Your task to perform on an android device: change the upload size in google photos Image 0: 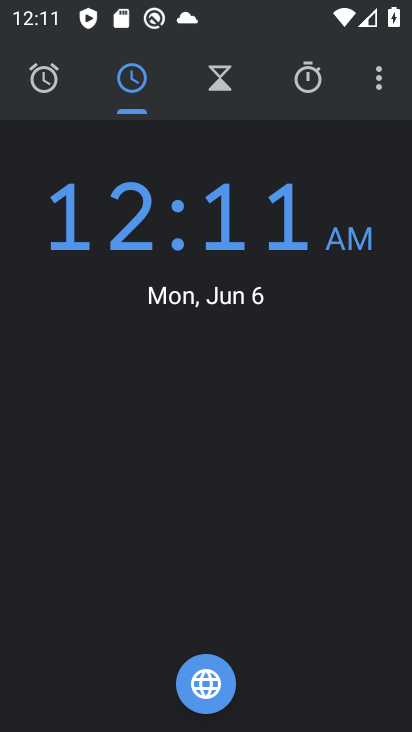
Step 0: press home button
Your task to perform on an android device: change the upload size in google photos Image 1: 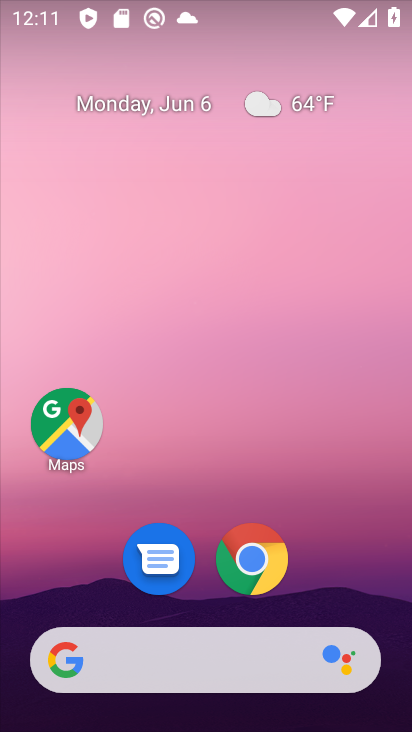
Step 1: drag from (270, 681) to (152, 230)
Your task to perform on an android device: change the upload size in google photos Image 2: 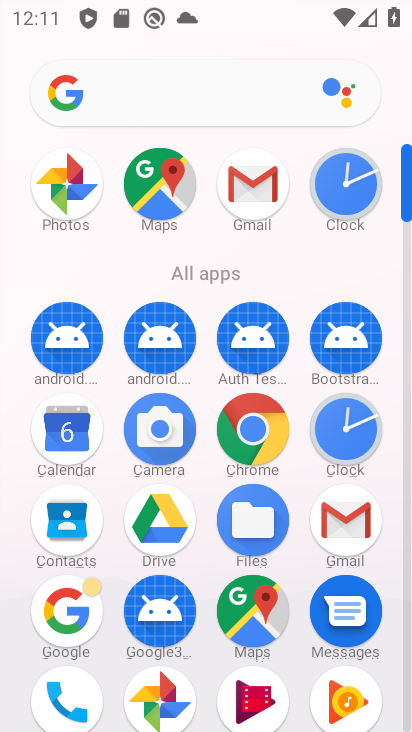
Step 2: drag from (208, 558) to (142, 342)
Your task to perform on an android device: change the upload size in google photos Image 3: 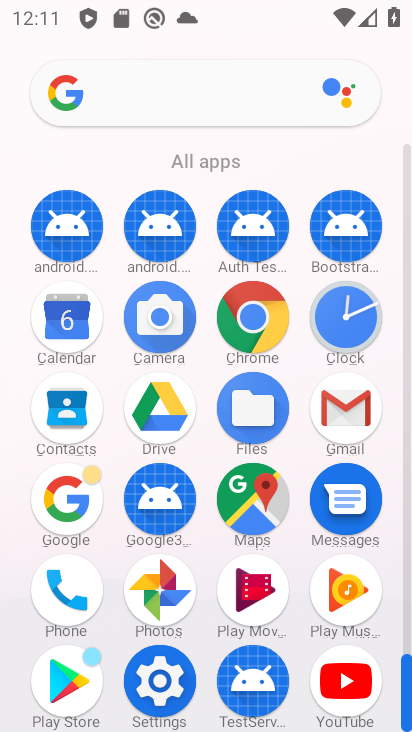
Step 3: click (177, 604)
Your task to perform on an android device: change the upload size in google photos Image 4: 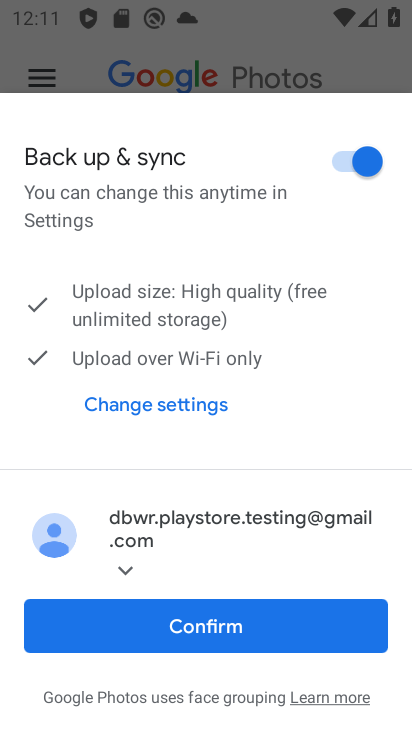
Step 4: click (176, 605)
Your task to perform on an android device: change the upload size in google photos Image 5: 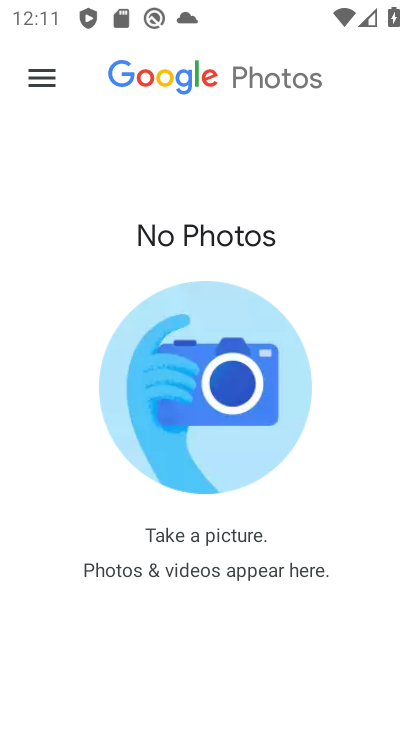
Step 5: click (49, 84)
Your task to perform on an android device: change the upload size in google photos Image 6: 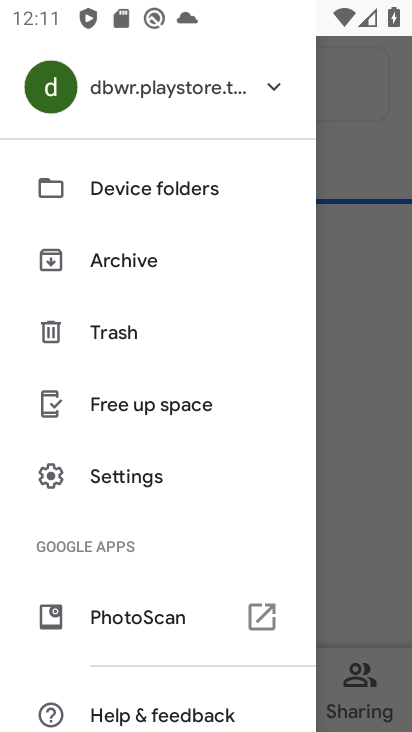
Step 6: click (133, 466)
Your task to perform on an android device: change the upload size in google photos Image 7: 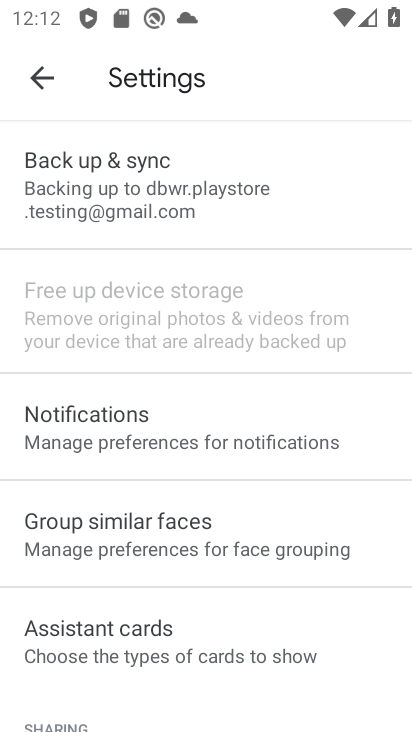
Step 7: drag from (162, 545) to (147, 372)
Your task to perform on an android device: change the upload size in google photos Image 8: 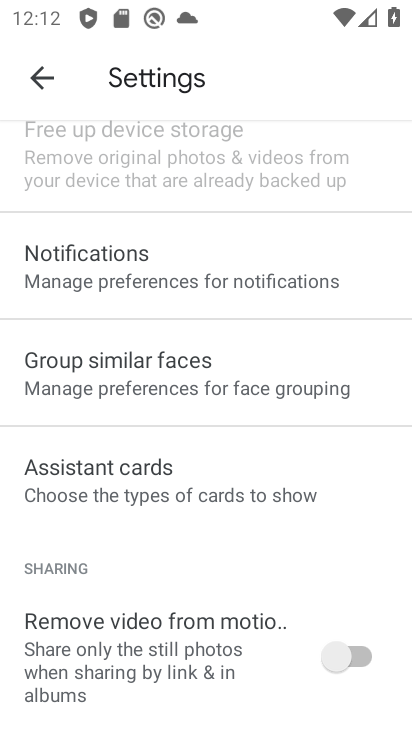
Step 8: drag from (101, 363) to (177, 672)
Your task to perform on an android device: change the upload size in google photos Image 9: 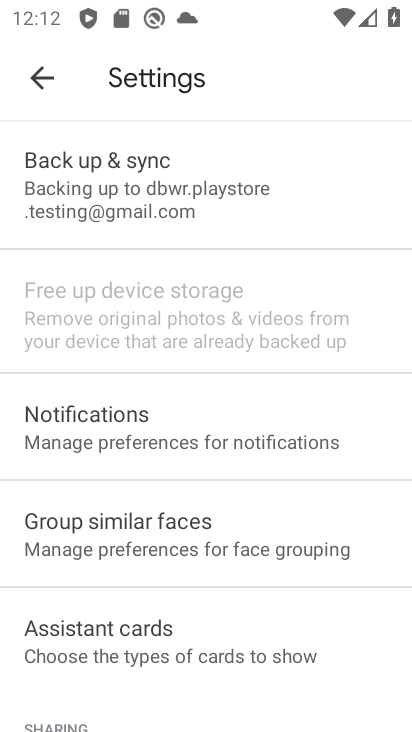
Step 9: click (132, 208)
Your task to perform on an android device: change the upload size in google photos Image 10: 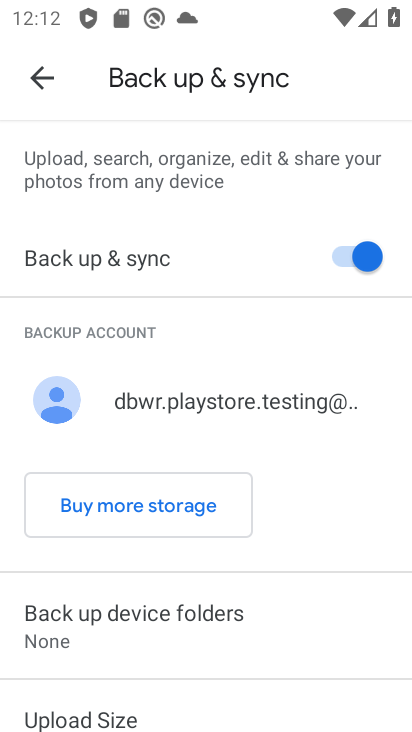
Step 10: drag from (190, 604) to (157, 431)
Your task to perform on an android device: change the upload size in google photos Image 11: 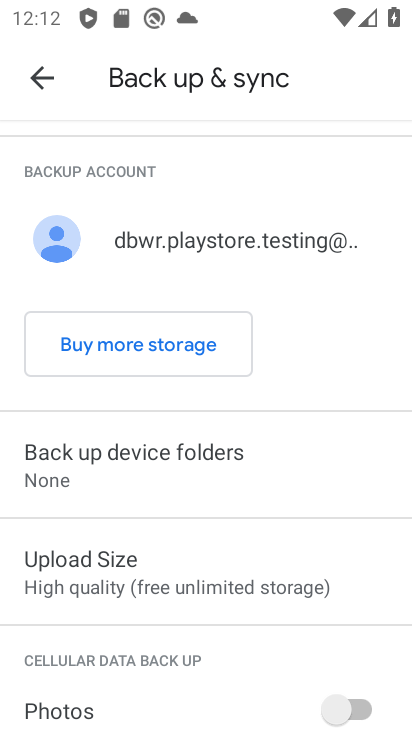
Step 11: click (125, 589)
Your task to perform on an android device: change the upload size in google photos Image 12: 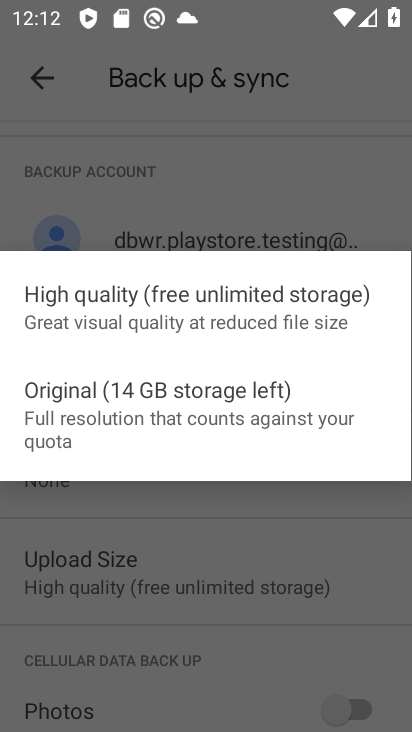
Step 12: task complete